Your task to perform on an android device: turn on sleep mode Image 0: 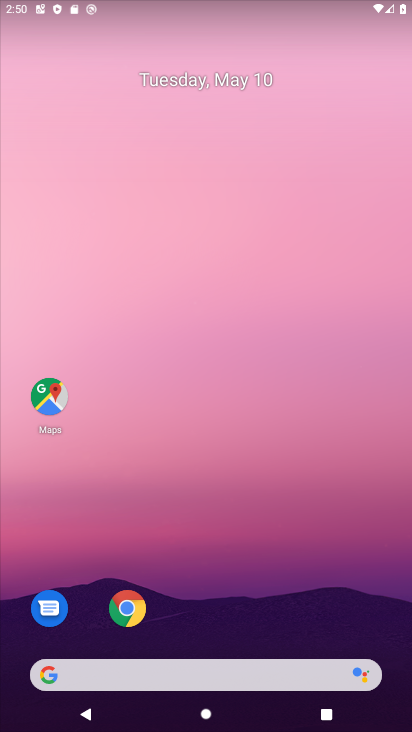
Step 0: drag from (202, 636) to (298, 81)
Your task to perform on an android device: turn on sleep mode Image 1: 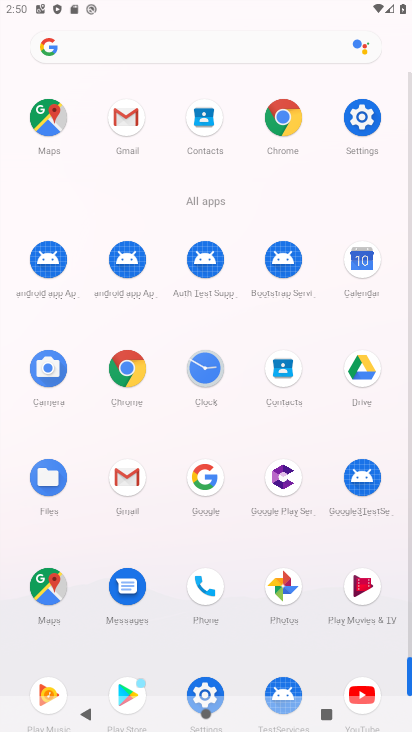
Step 1: click (344, 139)
Your task to perform on an android device: turn on sleep mode Image 2: 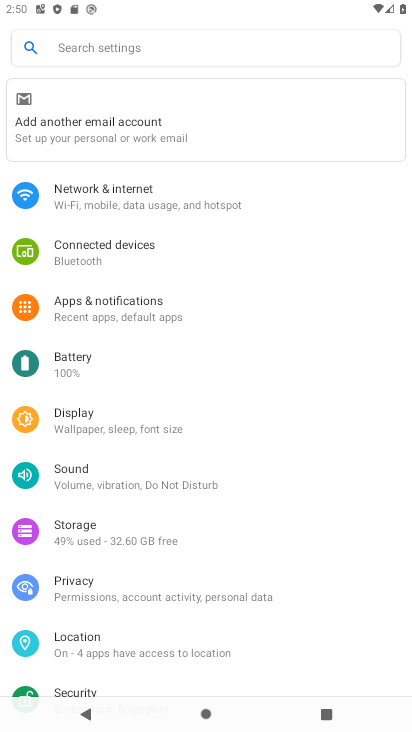
Step 2: click (186, 59)
Your task to perform on an android device: turn on sleep mode Image 3: 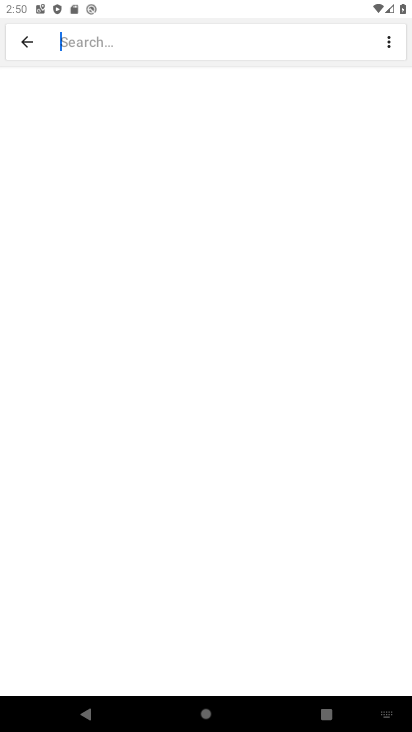
Step 3: type "sleep mode"
Your task to perform on an android device: turn on sleep mode Image 4: 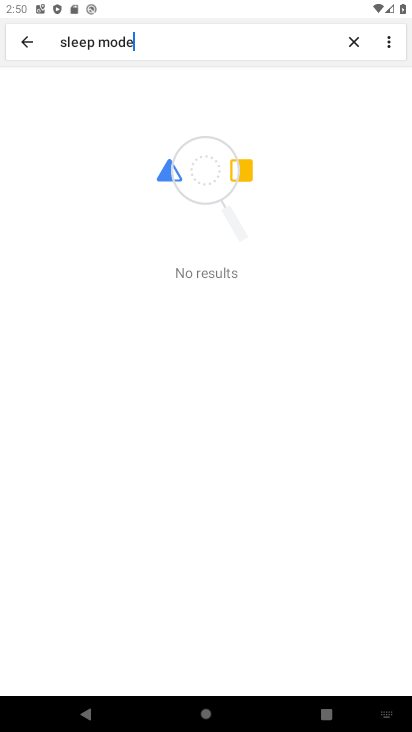
Step 4: task complete